Your task to perform on an android device: See recent photos Image 0: 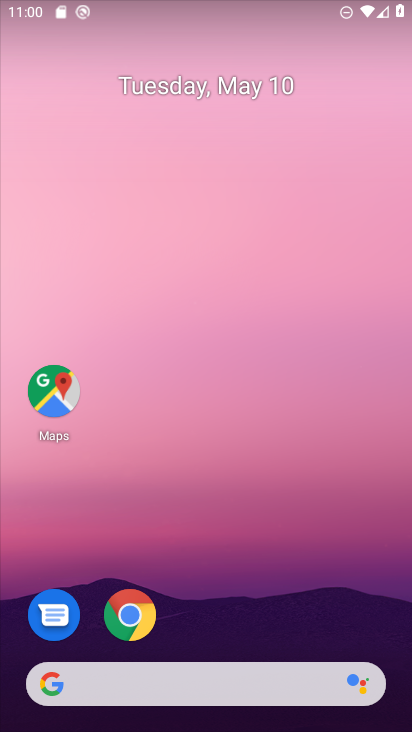
Step 0: click (346, 242)
Your task to perform on an android device: See recent photos Image 1: 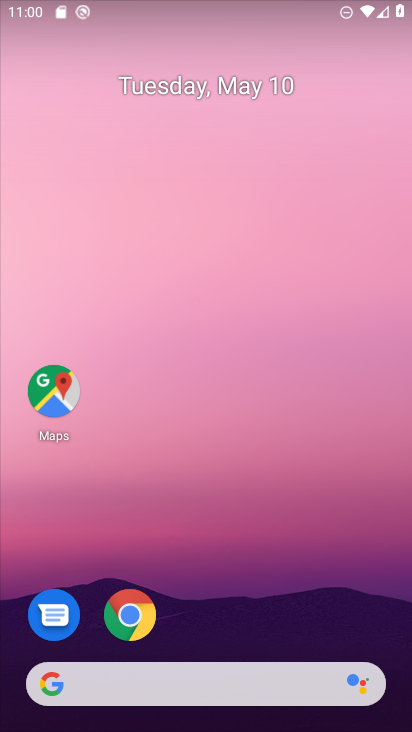
Step 1: drag from (202, 622) to (270, 261)
Your task to perform on an android device: See recent photos Image 2: 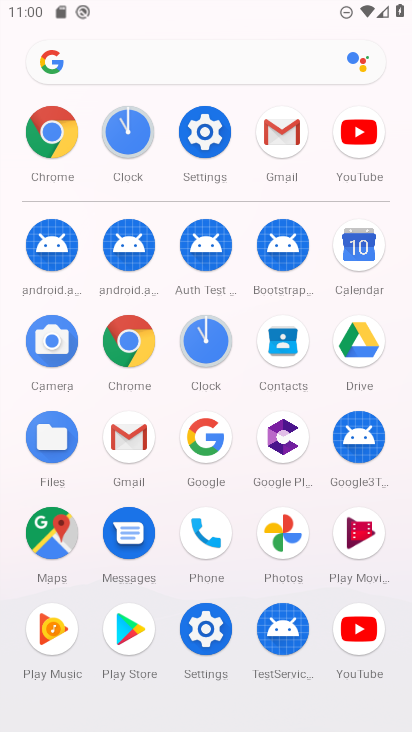
Step 2: click (276, 540)
Your task to perform on an android device: See recent photos Image 3: 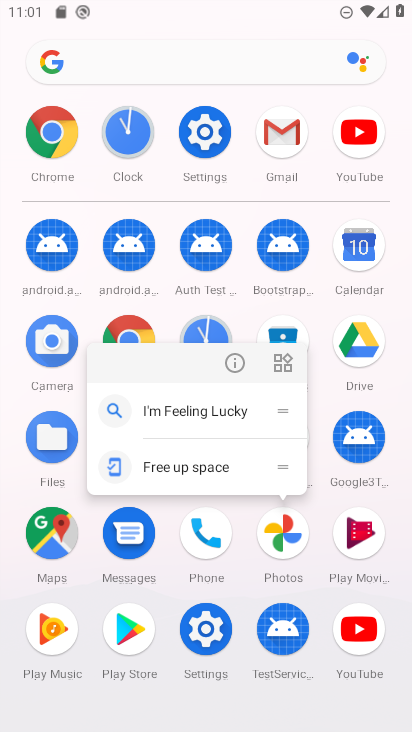
Step 3: click (233, 359)
Your task to perform on an android device: See recent photos Image 4: 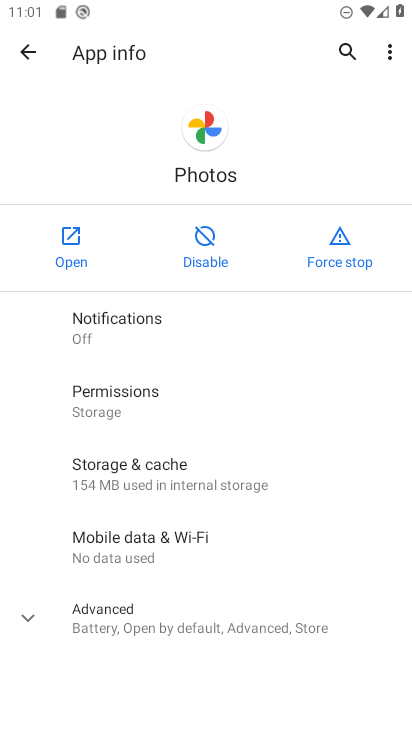
Step 4: click (76, 242)
Your task to perform on an android device: See recent photos Image 5: 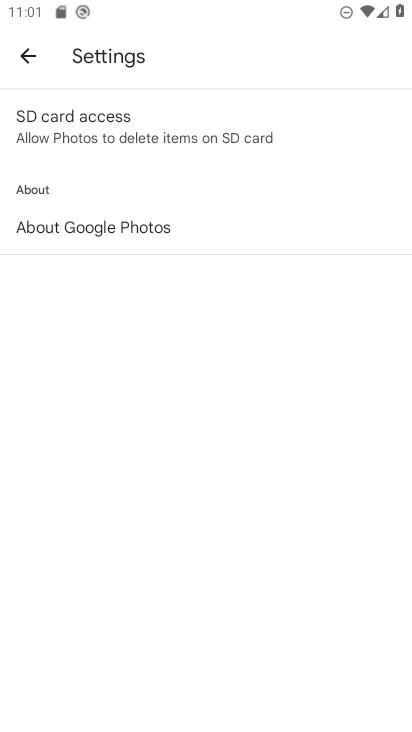
Step 5: click (25, 46)
Your task to perform on an android device: See recent photos Image 6: 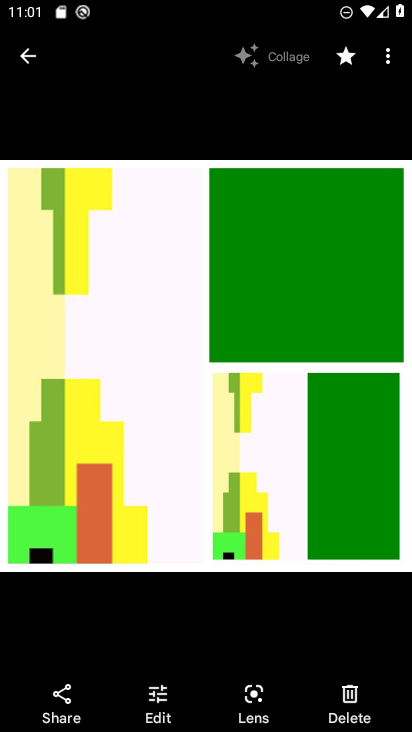
Step 6: click (26, 74)
Your task to perform on an android device: See recent photos Image 7: 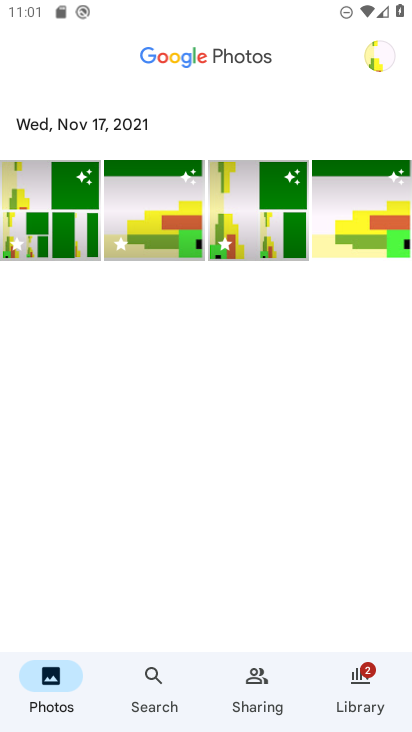
Step 7: click (60, 195)
Your task to perform on an android device: See recent photos Image 8: 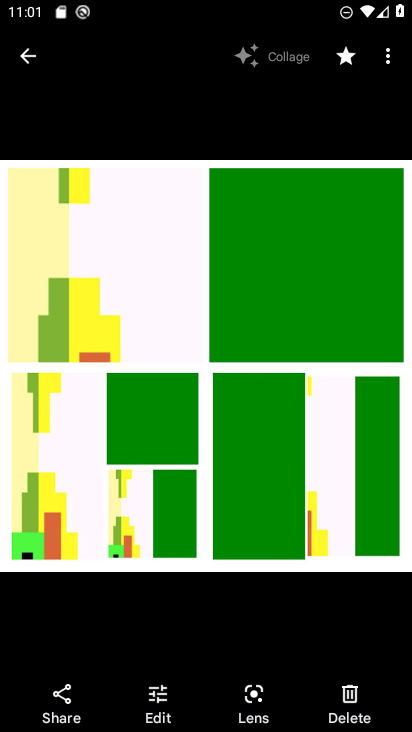
Step 8: task complete